Your task to perform on an android device: turn on priority inbox in the gmail app Image 0: 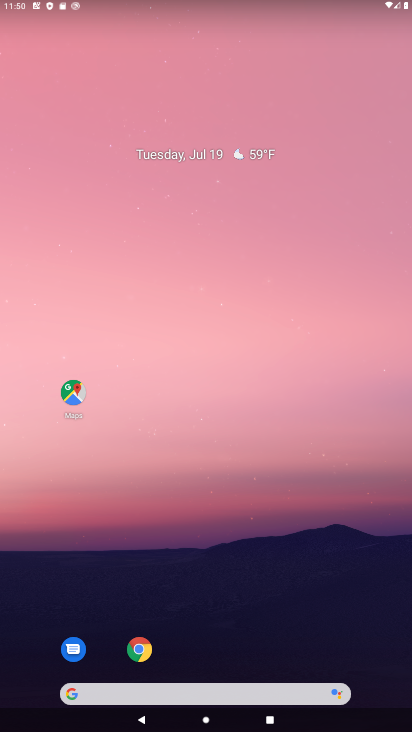
Step 0: drag from (247, 490) to (288, 248)
Your task to perform on an android device: turn on priority inbox in the gmail app Image 1: 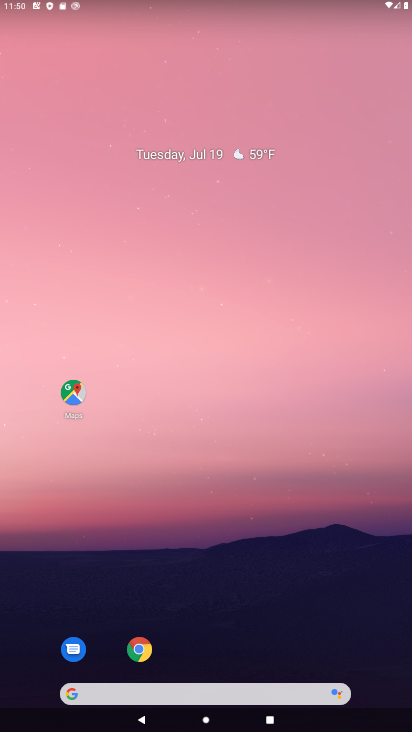
Step 1: drag from (283, 411) to (366, 76)
Your task to perform on an android device: turn on priority inbox in the gmail app Image 2: 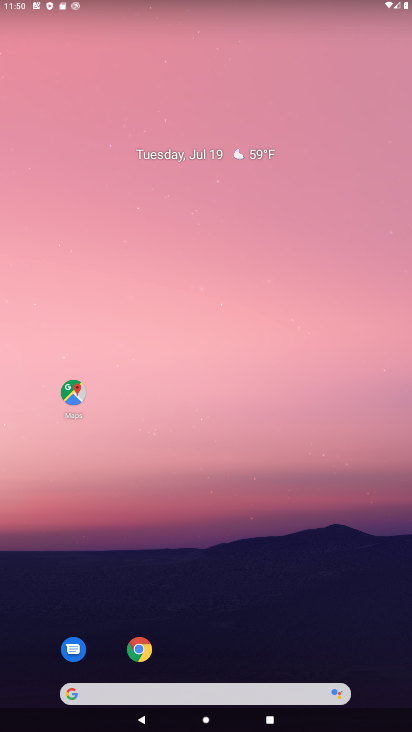
Step 2: drag from (226, 601) to (360, 55)
Your task to perform on an android device: turn on priority inbox in the gmail app Image 3: 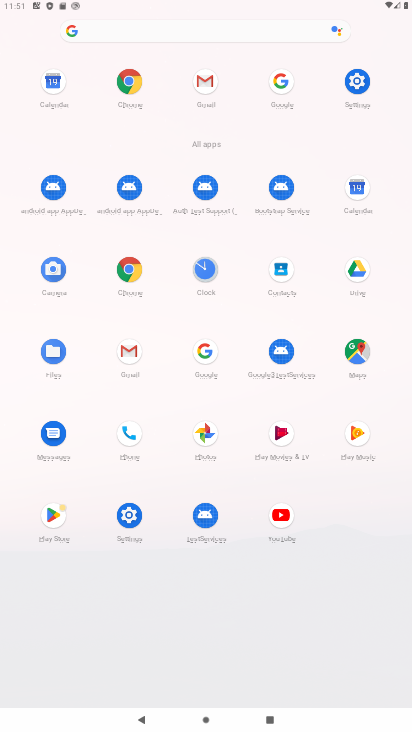
Step 3: click (136, 346)
Your task to perform on an android device: turn on priority inbox in the gmail app Image 4: 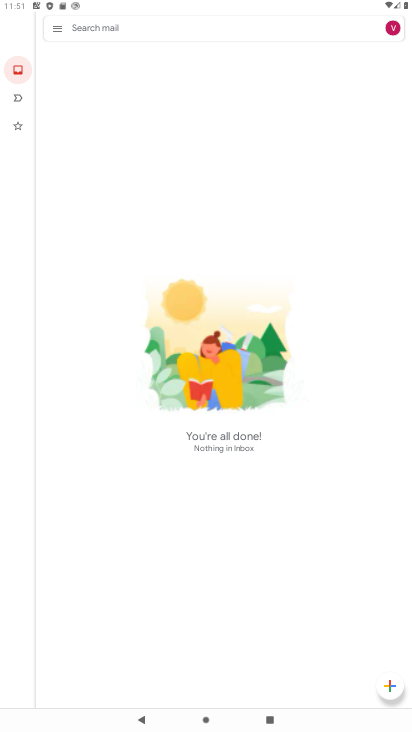
Step 4: task complete